Your task to perform on an android device: open a new tab in the chrome app Image 0: 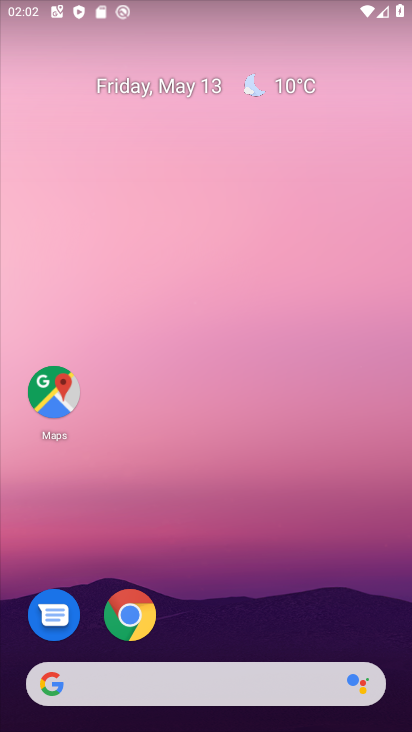
Step 0: click (118, 613)
Your task to perform on an android device: open a new tab in the chrome app Image 1: 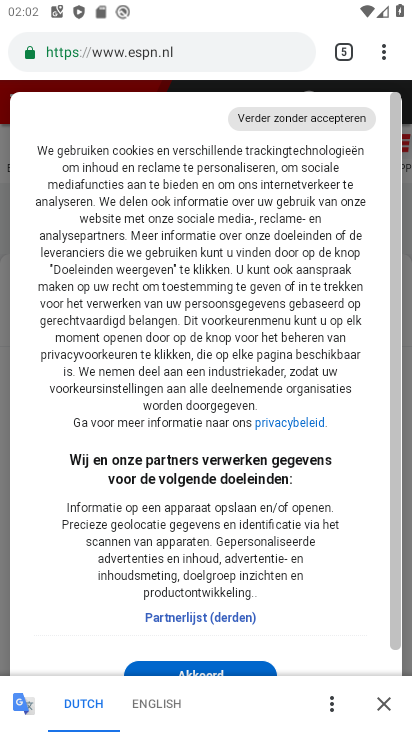
Step 1: click (379, 59)
Your task to perform on an android device: open a new tab in the chrome app Image 2: 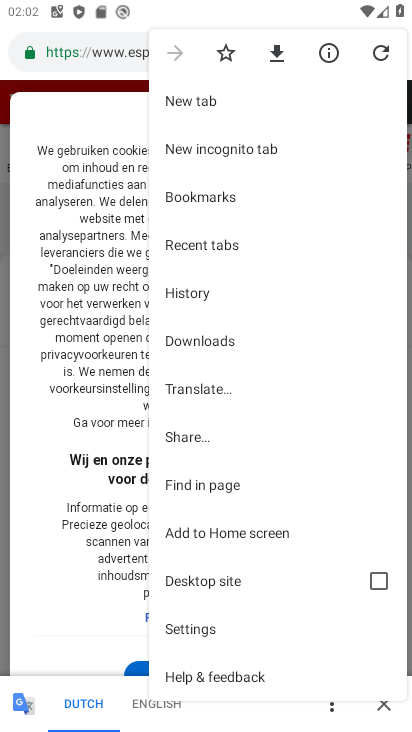
Step 2: click (180, 108)
Your task to perform on an android device: open a new tab in the chrome app Image 3: 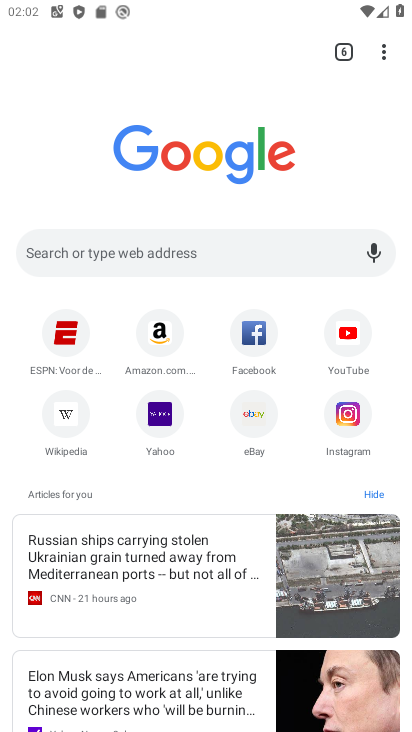
Step 3: task complete